Your task to perform on an android device: choose inbox layout in the gmail app Image 0: 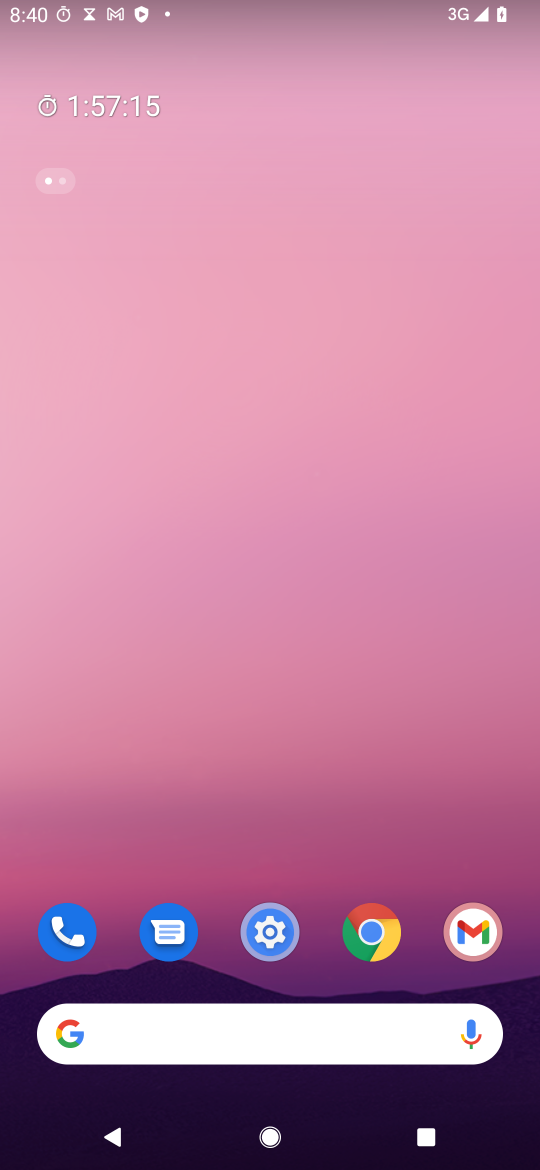
Step 0: drag from (184, 652) to (264, 17)
Your task to perform on an android device: choose inbox layout in the gmail app Image 1: 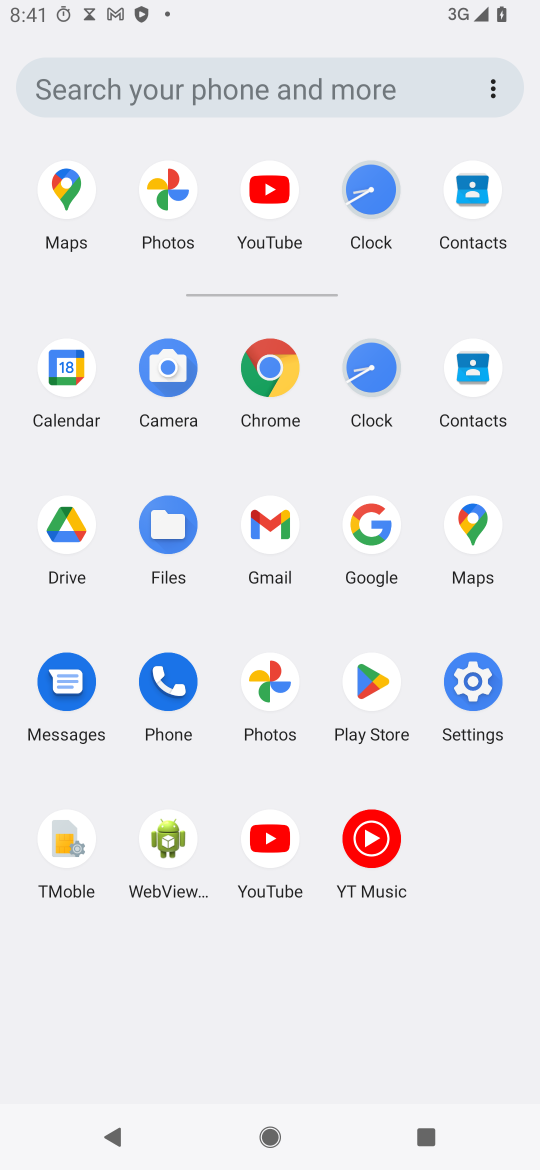
Step 1: click (266, 519)
Your task to perform on an android device: choose inbox layout in the gmail app Image 2: 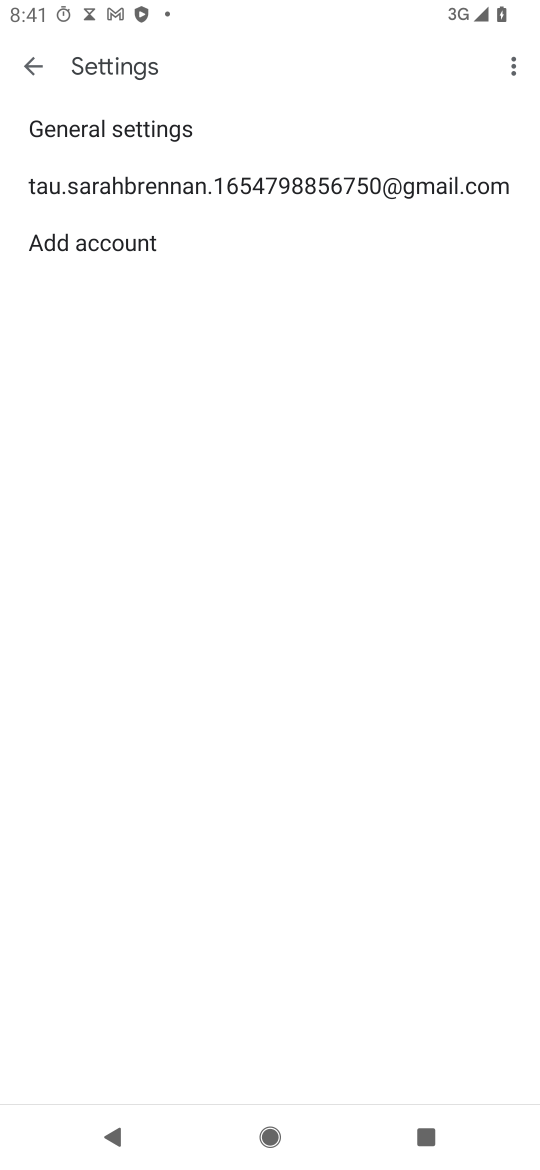
Step 2: click (285, 196)
Your task to perform on an android device: choose inbox layout in the gmail app Image 3: 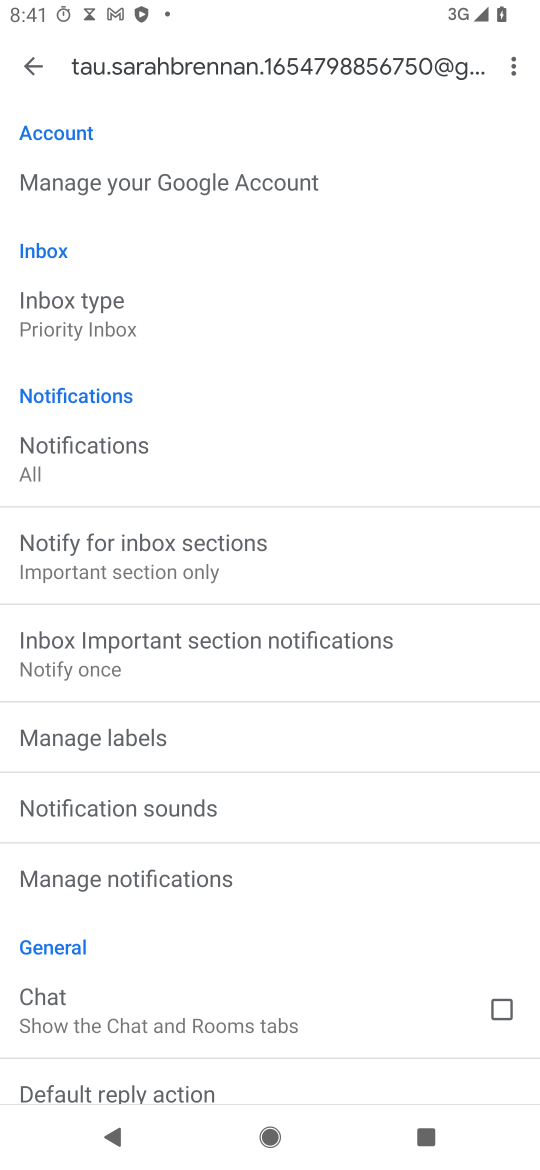
Step 3: drag from (155, 555) to (412, 75)
Your task to perform on an android device: choose inbox layout in the gmail app Image 4: 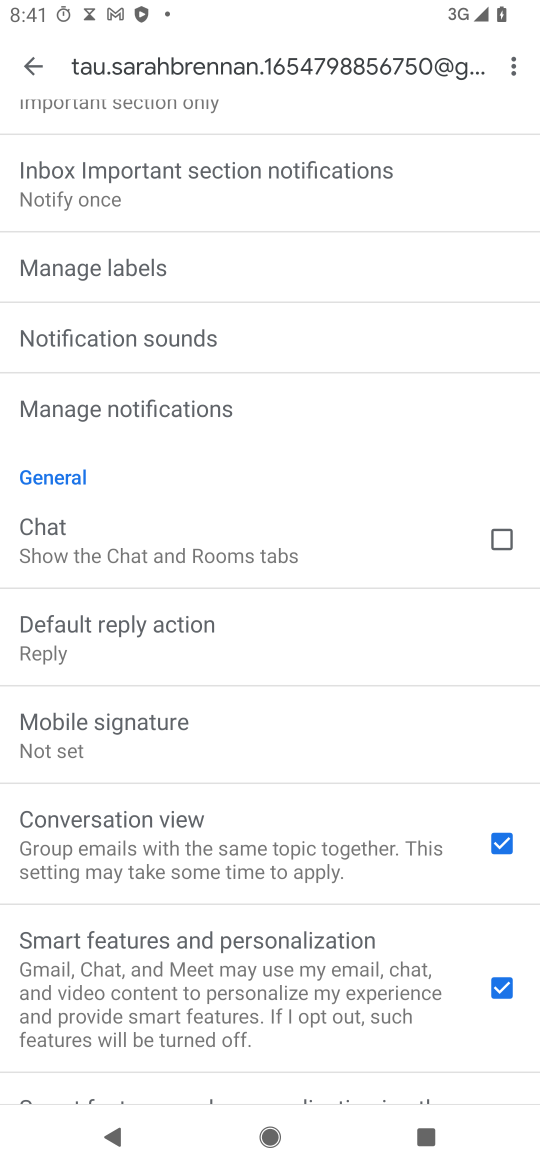
Step 4: drag from (194, 264) to (202, 1050)
Your task to perform on an android device: choose inbox layout in the gmail app Image 5: 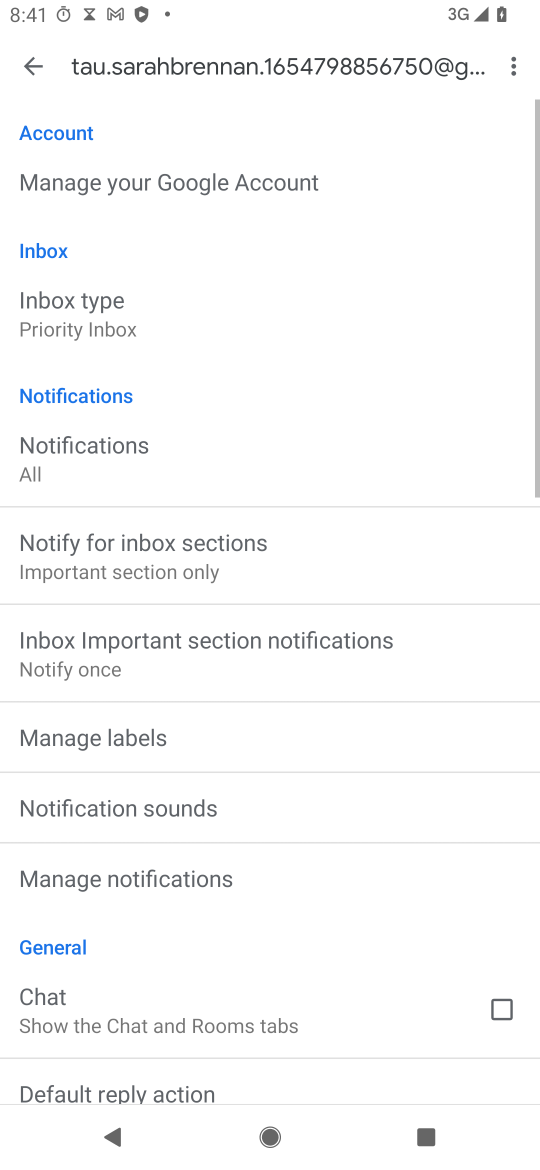
Step 5: click (90, 305)
Your task to perform on an android device: choose inbox layout in the gmail app Image 6: 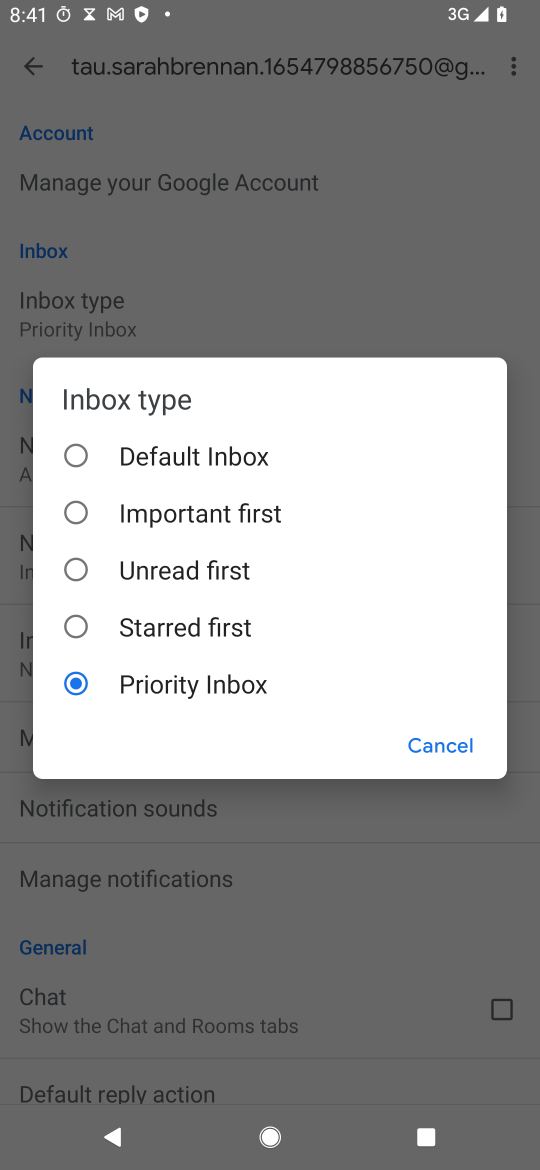
Step 6: click (172, 566)
Your task to perform on an android device: choose inbox layout in the gmail app Image 7: 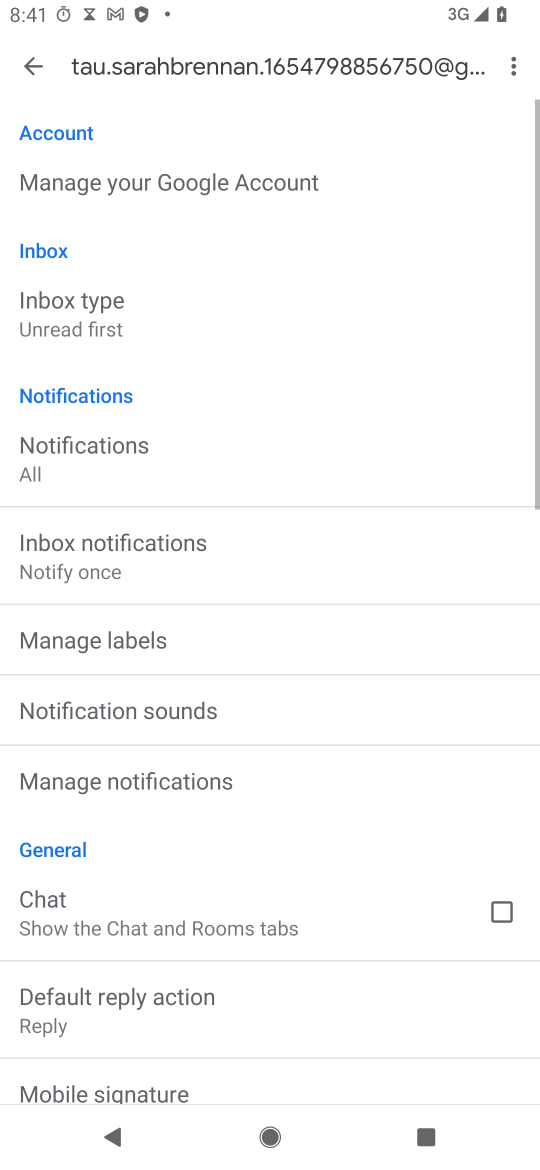
Step 7: task complete